Your task to perform on an android device: move an email to a new category in the gmail app Image 0: 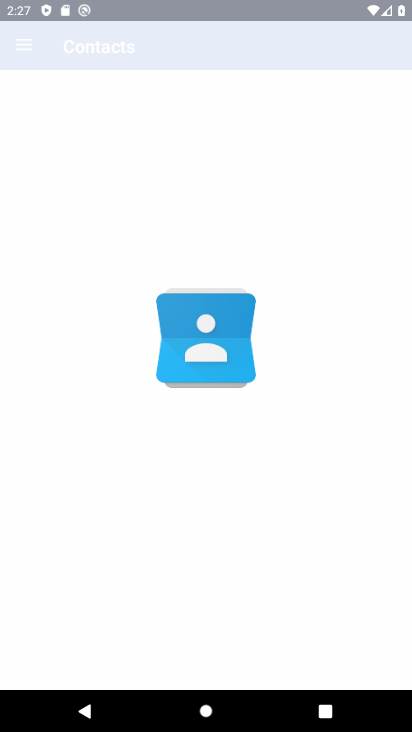
Step 0: drag from (285, 615) to (254, 97)
Your task to perform on an android device: move an email to a new category in the gmail app Image 1: 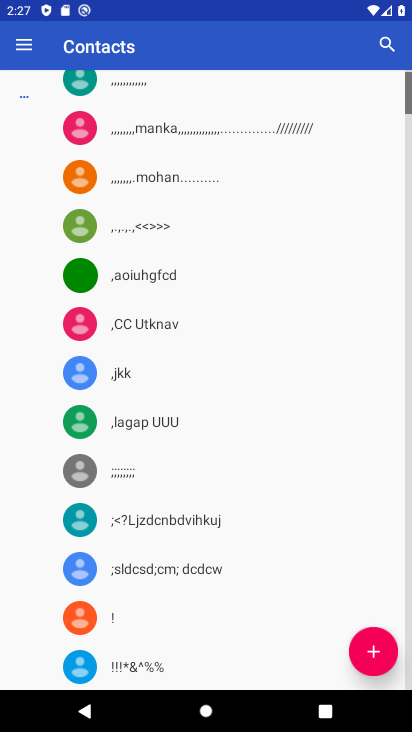
Step 1: press home button
Your task to perform on an android device: move an email to a new category in the gmail app Image 2: 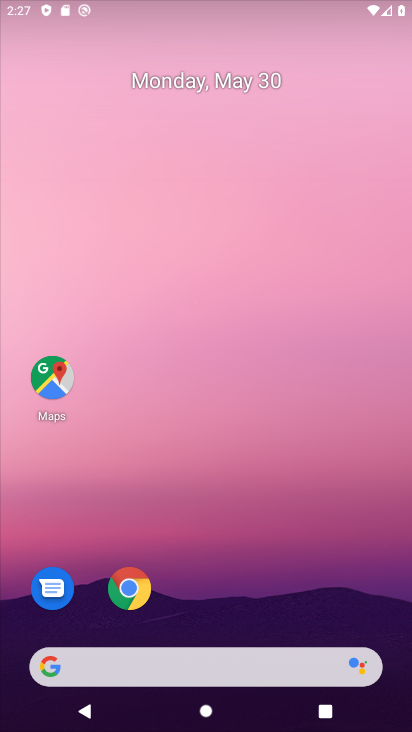
Step 2: drag from (262, 611) to (224, 151)
Your task to perform on an android device: move an email to a new category in the gmail app Image 3: 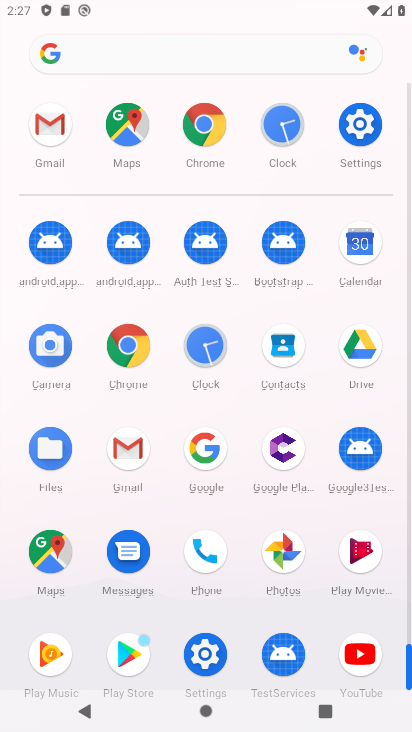
Step 3: click (128, 444)
Your task to perform on an android device: move an email to a new category in the gmail app Image 4: 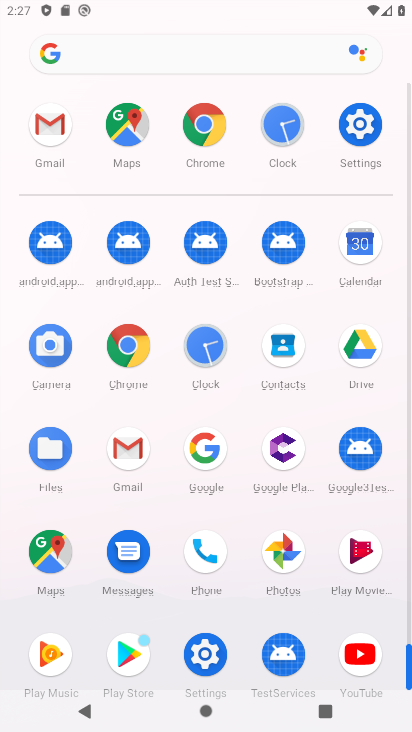
Step 4: click (136, 448)
Your task to perform on an android device: move an email to a new category in the gmail app Image 5: 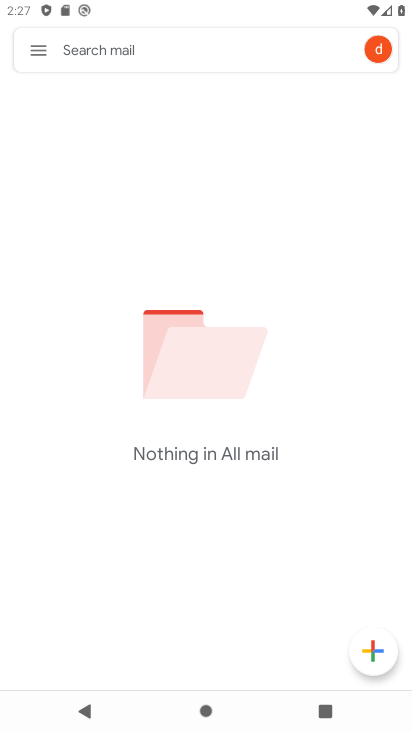
Step 5: click (32, 51)
Your task to perform on an android device: move an email to a new category in the gmail app Image 6: 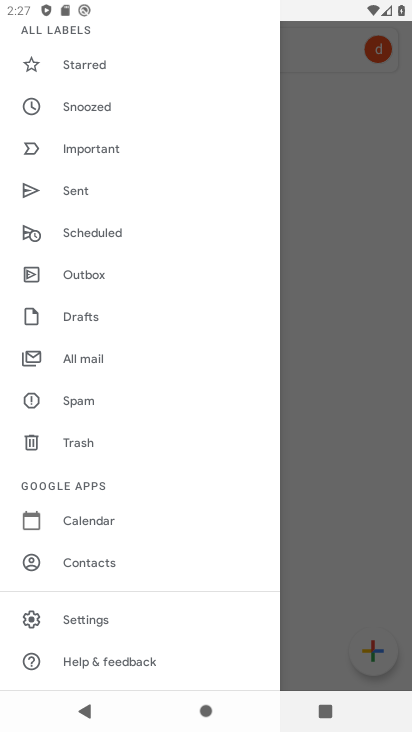
Step 6: click (99, 364)
Your task to perform on an android device: move an email to a new category in the gmail app Image 7: 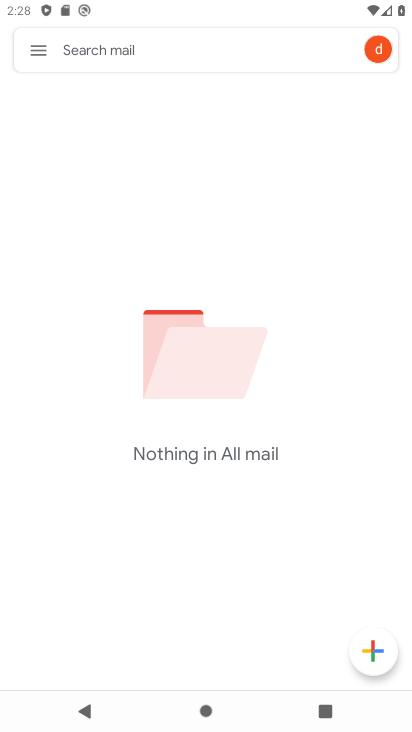
Step 7: task complete